Your task to perform on an android device: open app "HBO Max: Stream TV & Movies" Image 0: 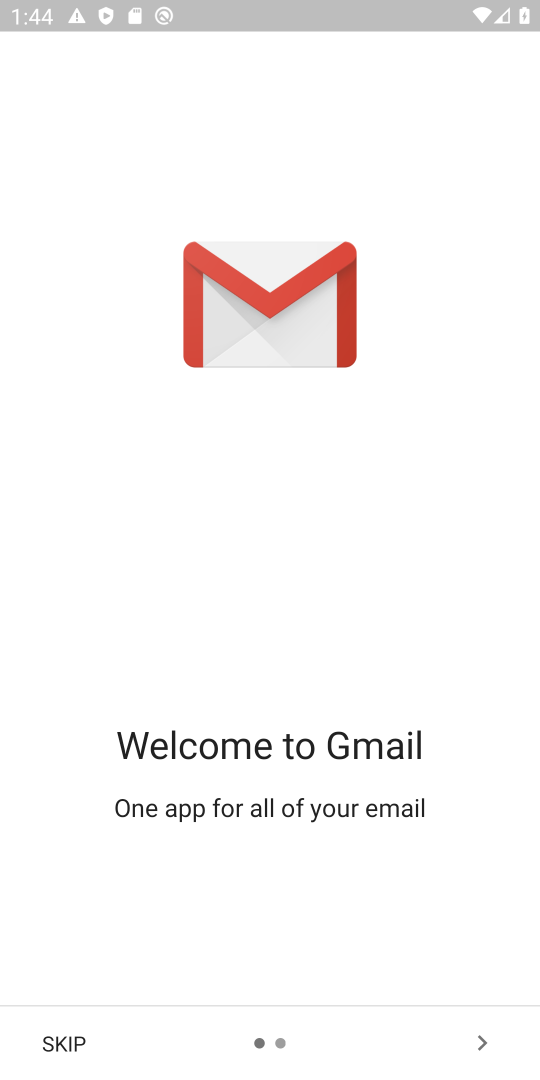
Step 0: press back button
Your task to perform on an android device: open app "HBO Max: Stream TV & Movies" Image 1: 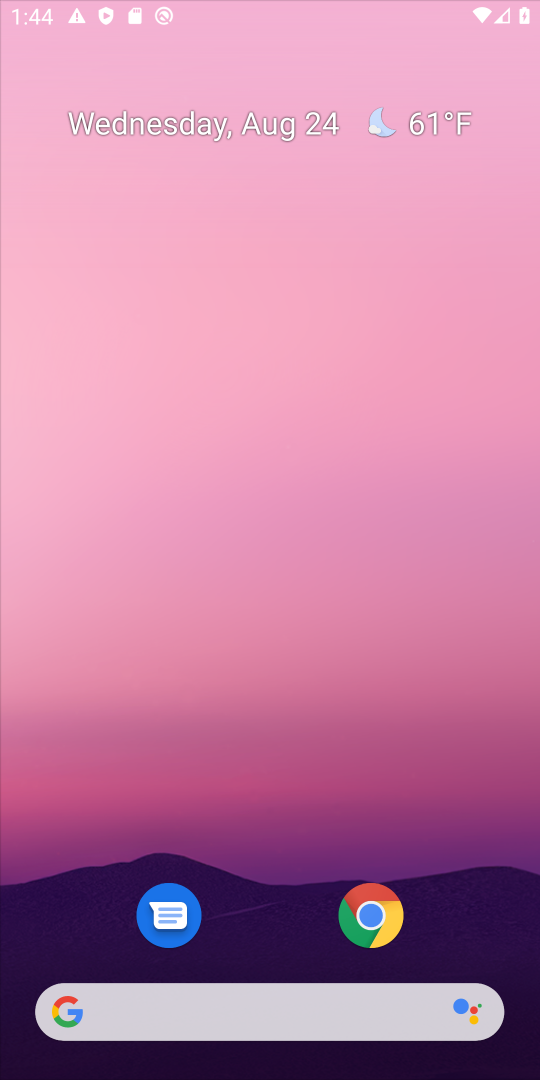
Step 1: press home button
Your task to perform on an android device: open app "HBO Max: Stream TV & Movies" Image 2: 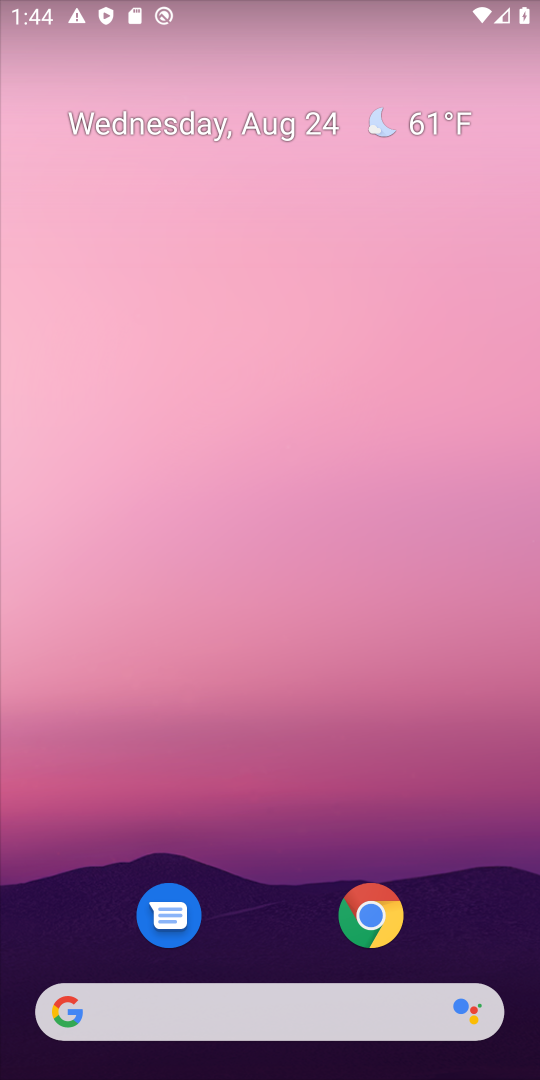
Step 2: drag from (282, 811) to (279, 211)
Your task to perform on an android device: open app "HBO Max: Stream TV & Movies" Image 3: 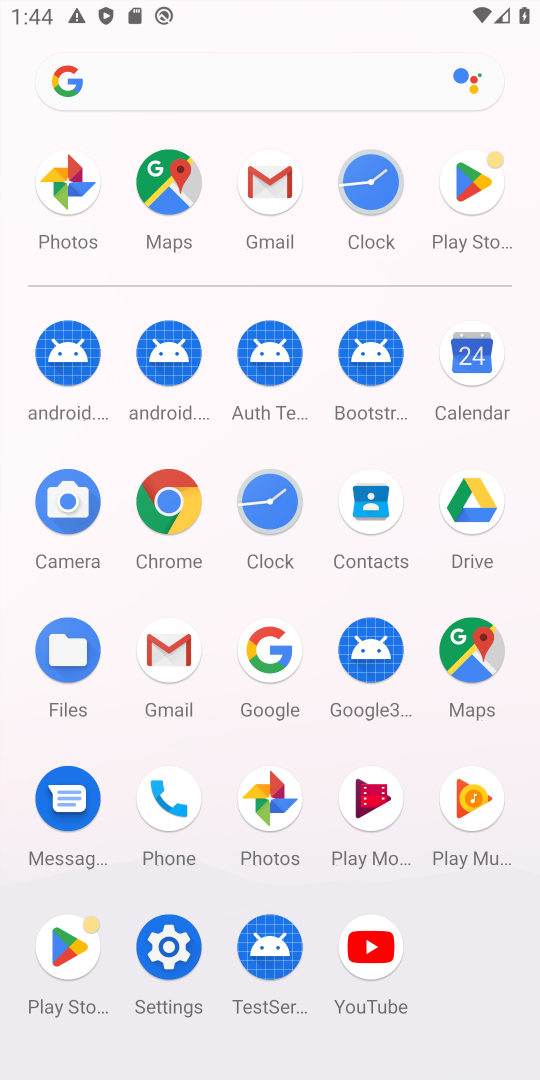
Step 3: click (472, 185)
Your task to perform on an android device: open app "HBO Max: Stream TV & Movies" Image 4: 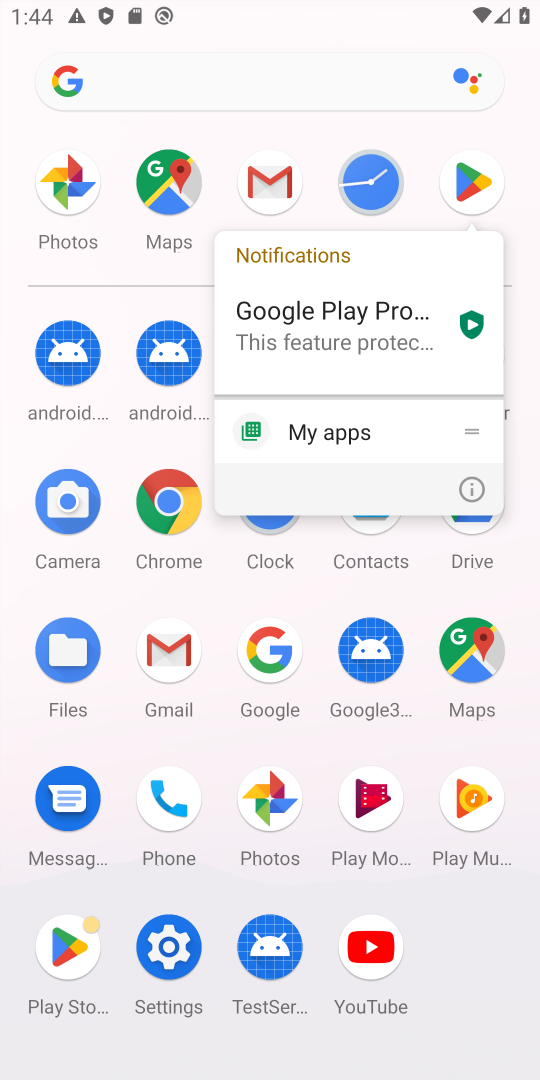
Step 4: click (472, 185)
Your task to perform on an android device: open app "HBO Max: Stream TV & Movies" Image 5: 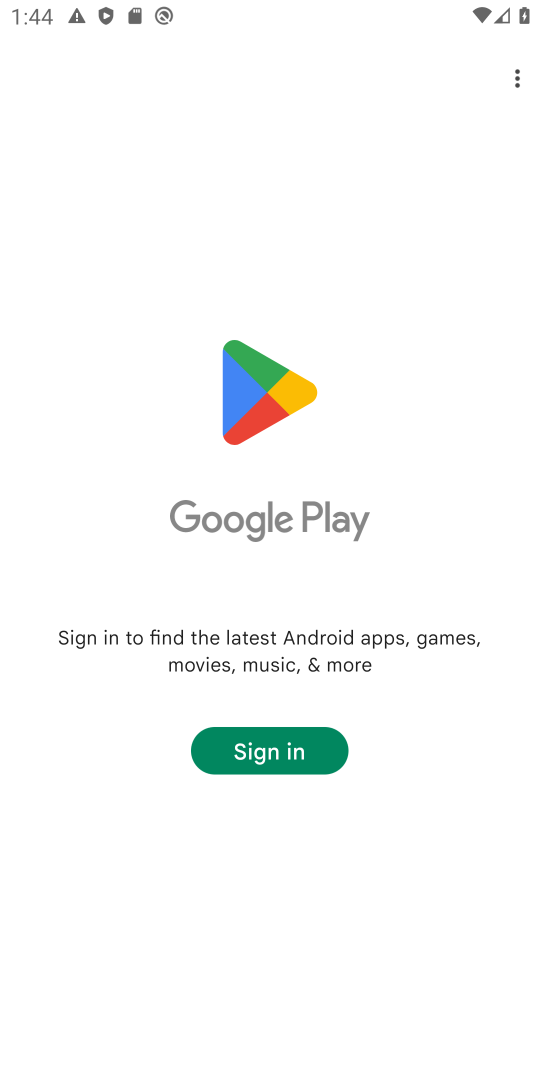
Step 5: click (321, 757)
Your task to perform on an android device: open app "HBO Max: Stream TV & Movies" Image 6: 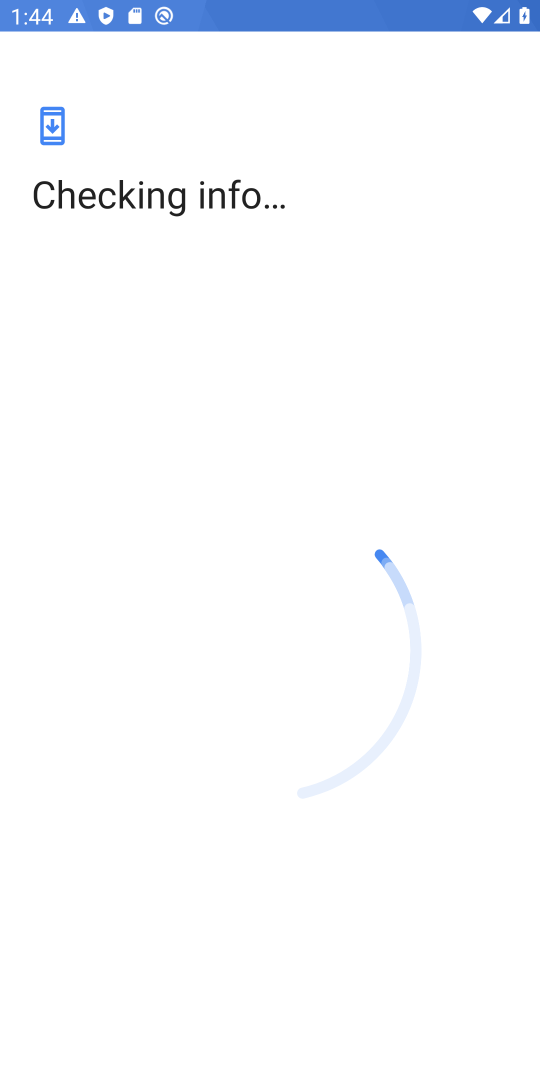
Step 6: task complete